Your task to perform on an android device: turn off picture-in-picture Image 0: 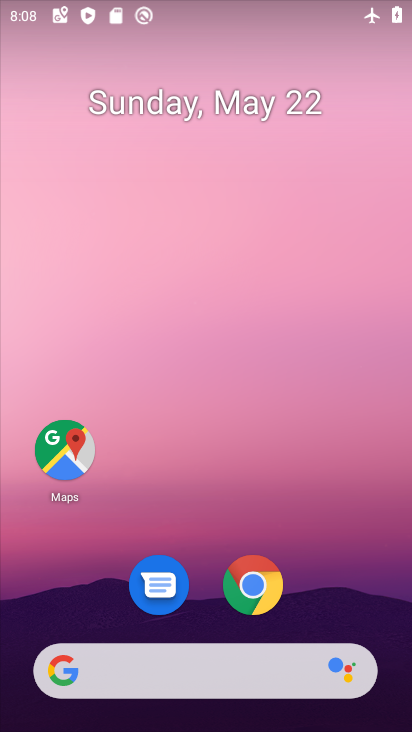
Step 0: click (245, 581)
Your task to perform on an android device: turn off picture-in-picture Image 1: 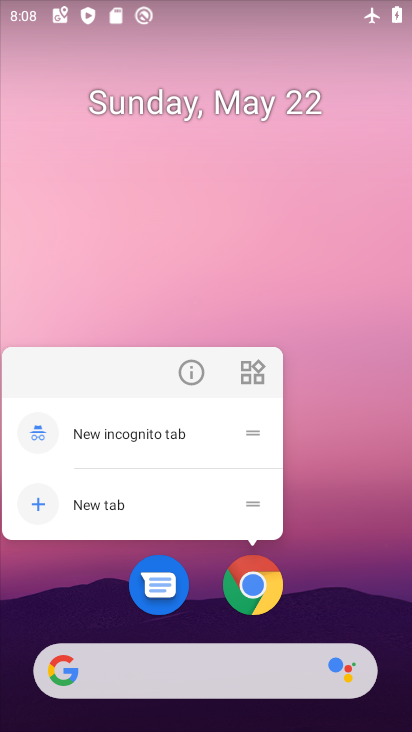
Step 1: click (186, 374)
Your task to perform on an android device: turn off picture-in-picture Image 2: 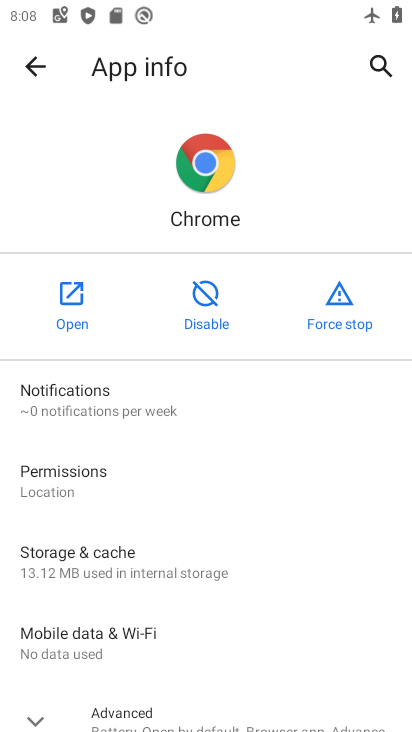
Step 2: drag from (208, 628) to (215, 305)
Your task to perform on an android device: turn off picture-in-picture Image 3: 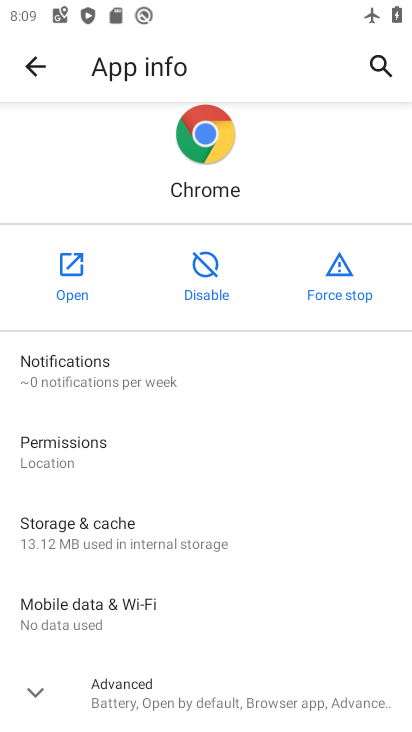
Step 3: click (31, 691)
Your task to perform on an android device: turn off picture-in-picture Image 4: 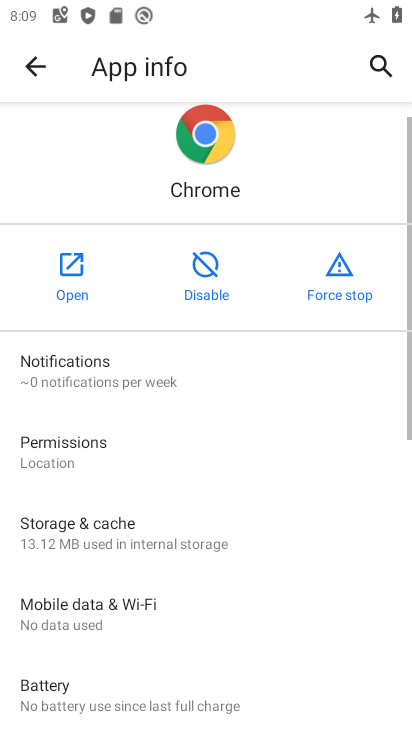
Step 4: drag from (192, 621) to (256, 219)
Your task to perform on an android device: turn off picture-in-picture Image 5: 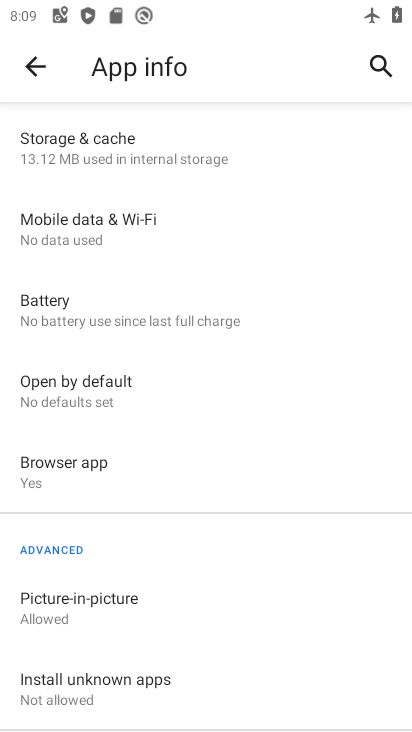
Step 5: click (124, 602)
Your task to perform on an android device: turn off picture-in-picture Image 6: 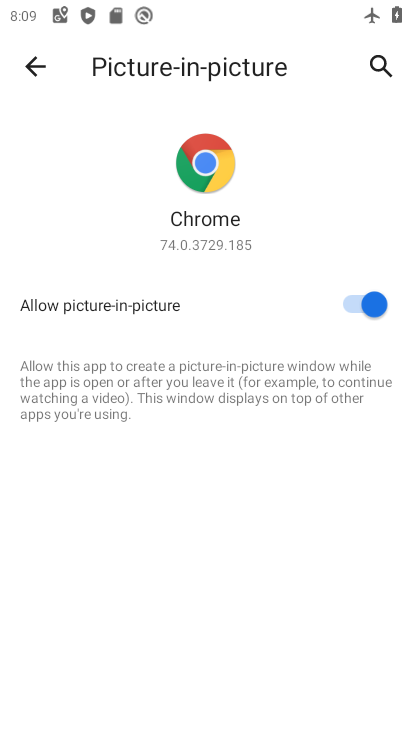
Step 6: click (356, 299)
Your task to perform on an android device: turn off picture-in-picture Image 7: 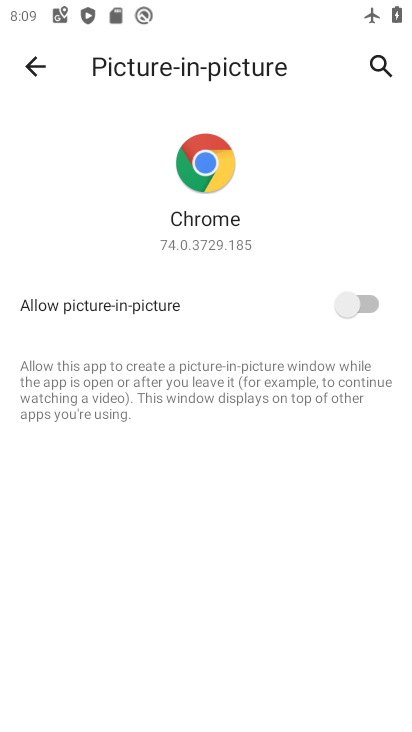
Step 7: task complete